Your task to perform on an android device: Is it going to rain tomorrow? Image 0: 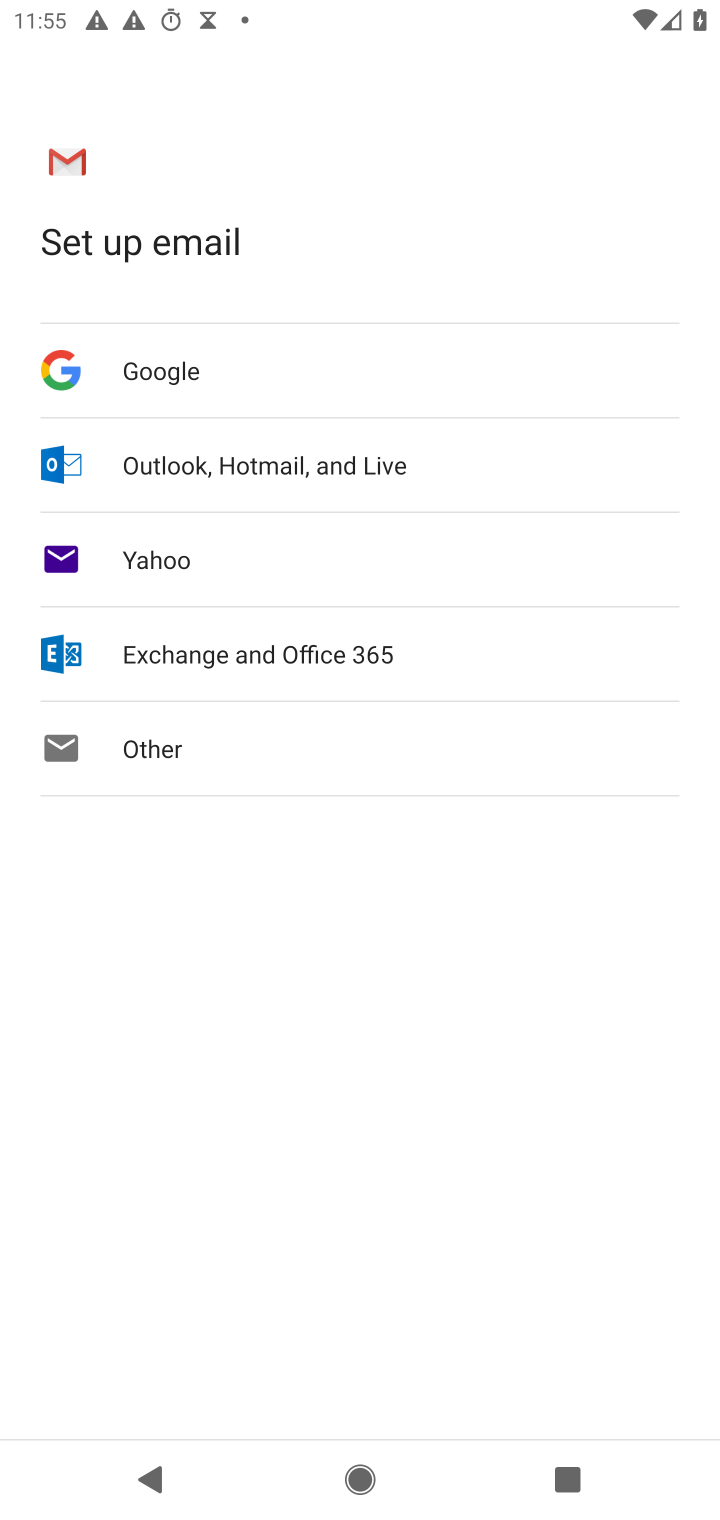
Step 0: press home button
Your task to perform on an android device: Is it going to rain tomorrow? Image 1: 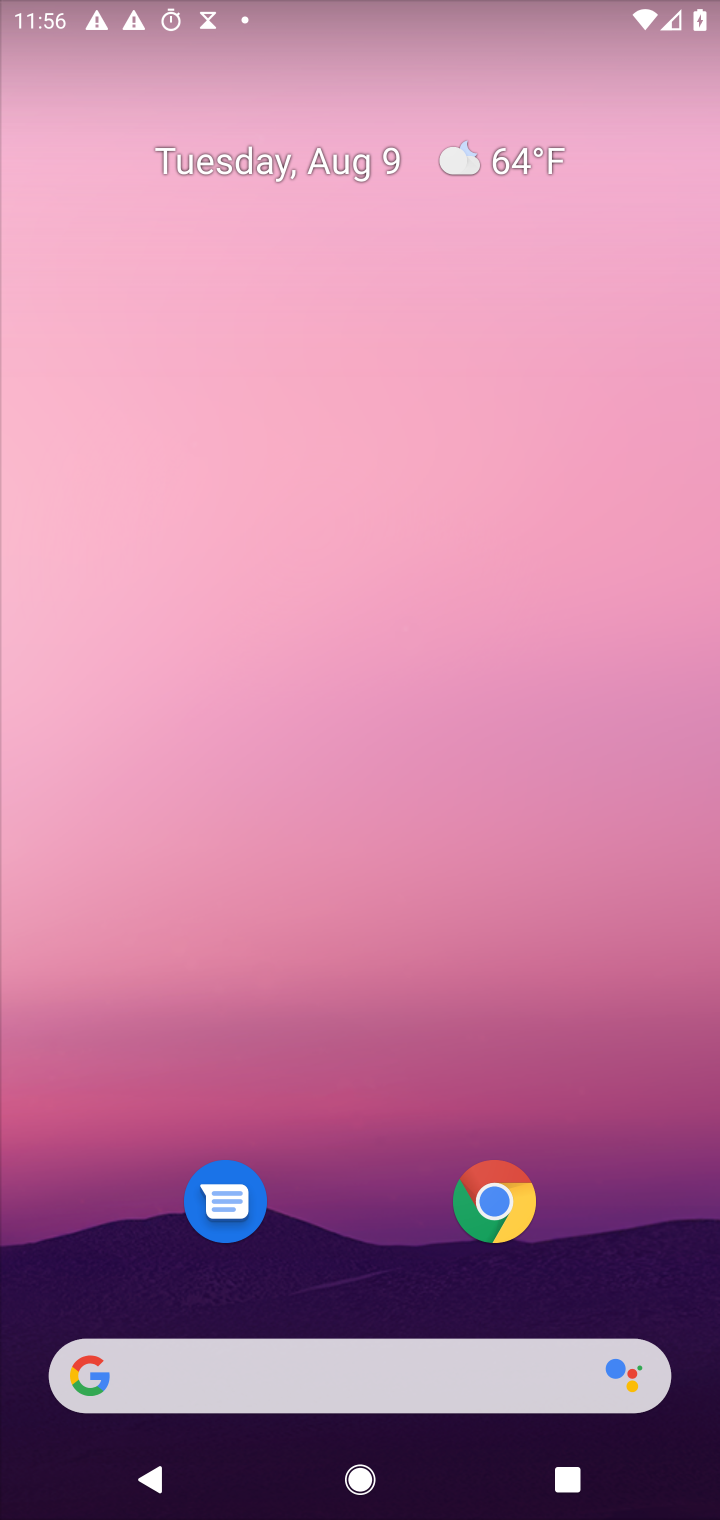
Step 1: drag from (389, 1088) to (371, 247)
Your task to perform on an android device: Is it going to rain tomorrow? Image 2: 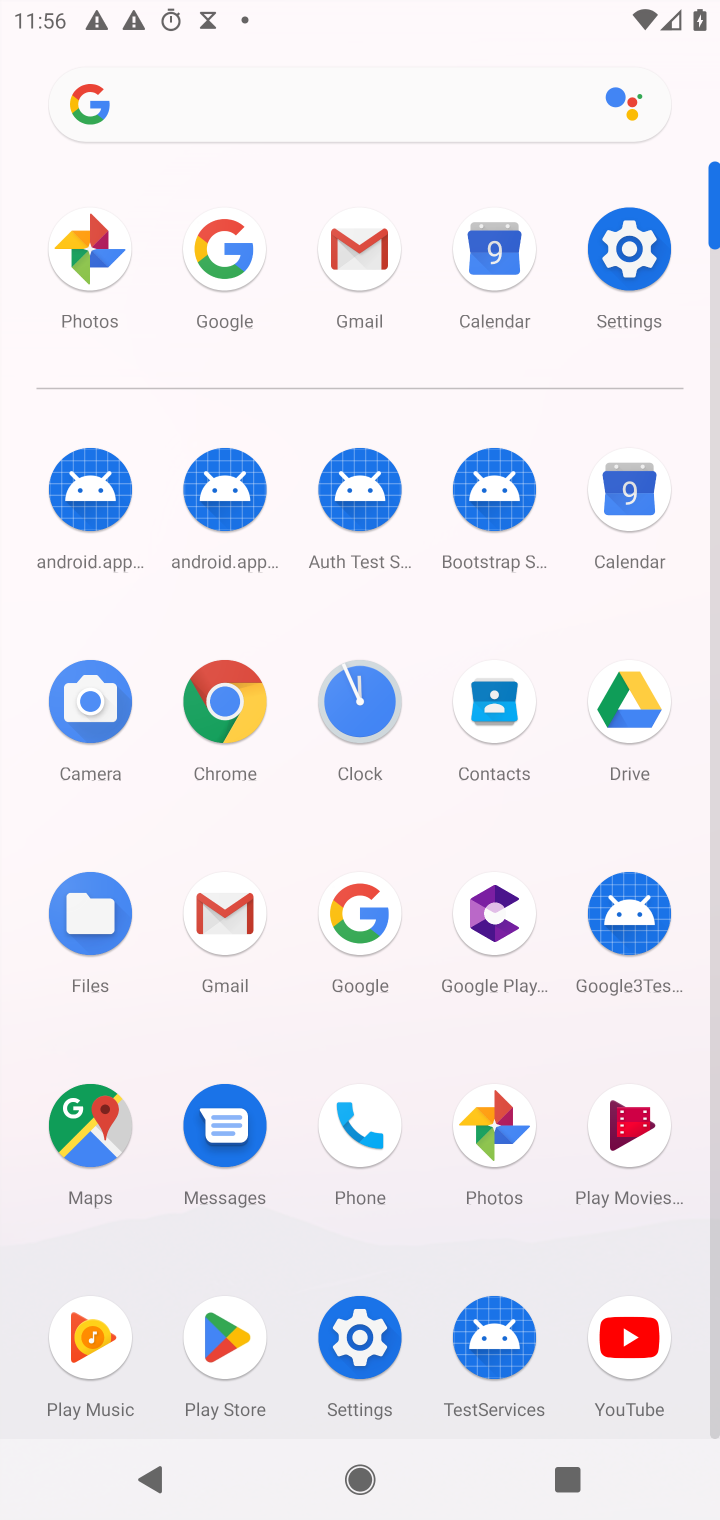
Step 2: click (232, 245)
Your task to perform on an android device: Is it going to rain tomorrow? Image 3: 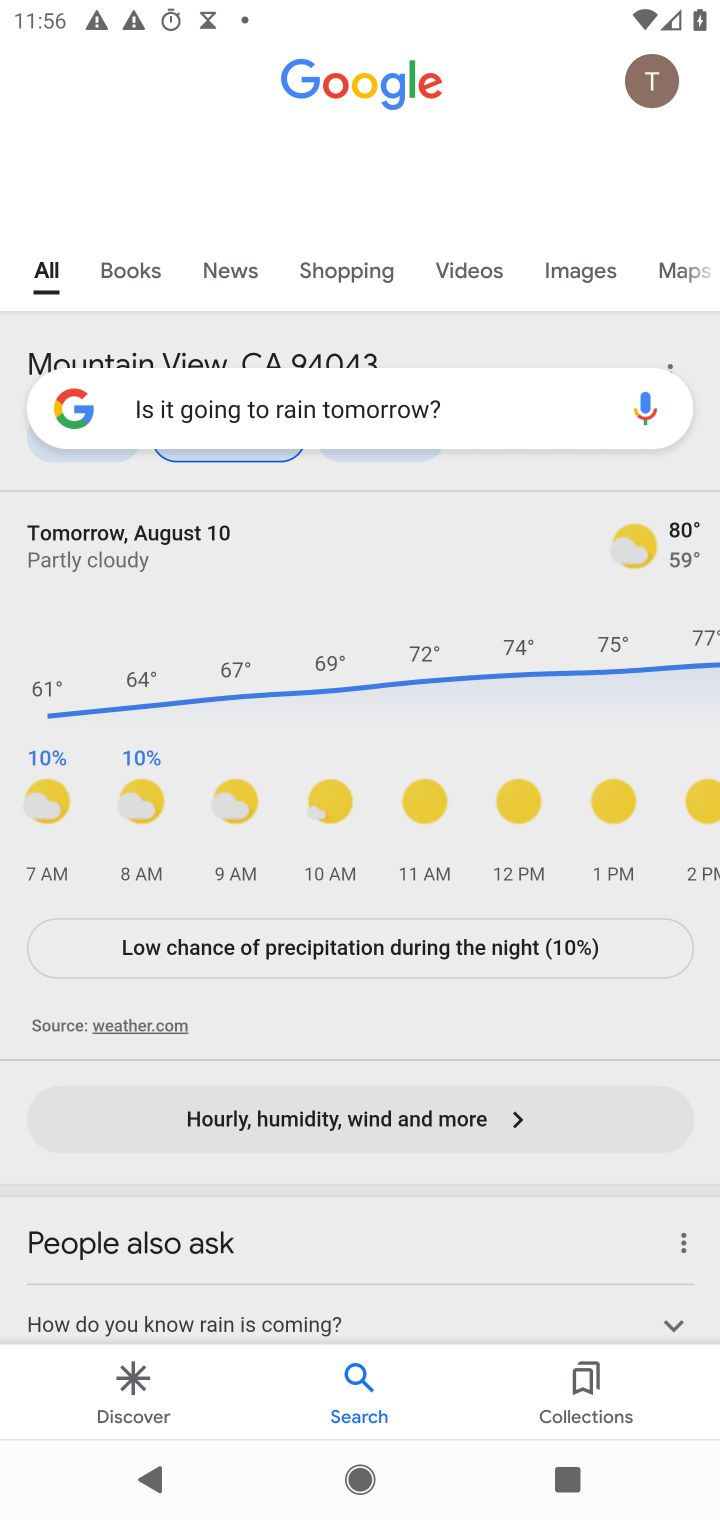
Step 3: click (472, 428)
Your task to perform on an android device: Is it going to rain tomorrow? Image 4: 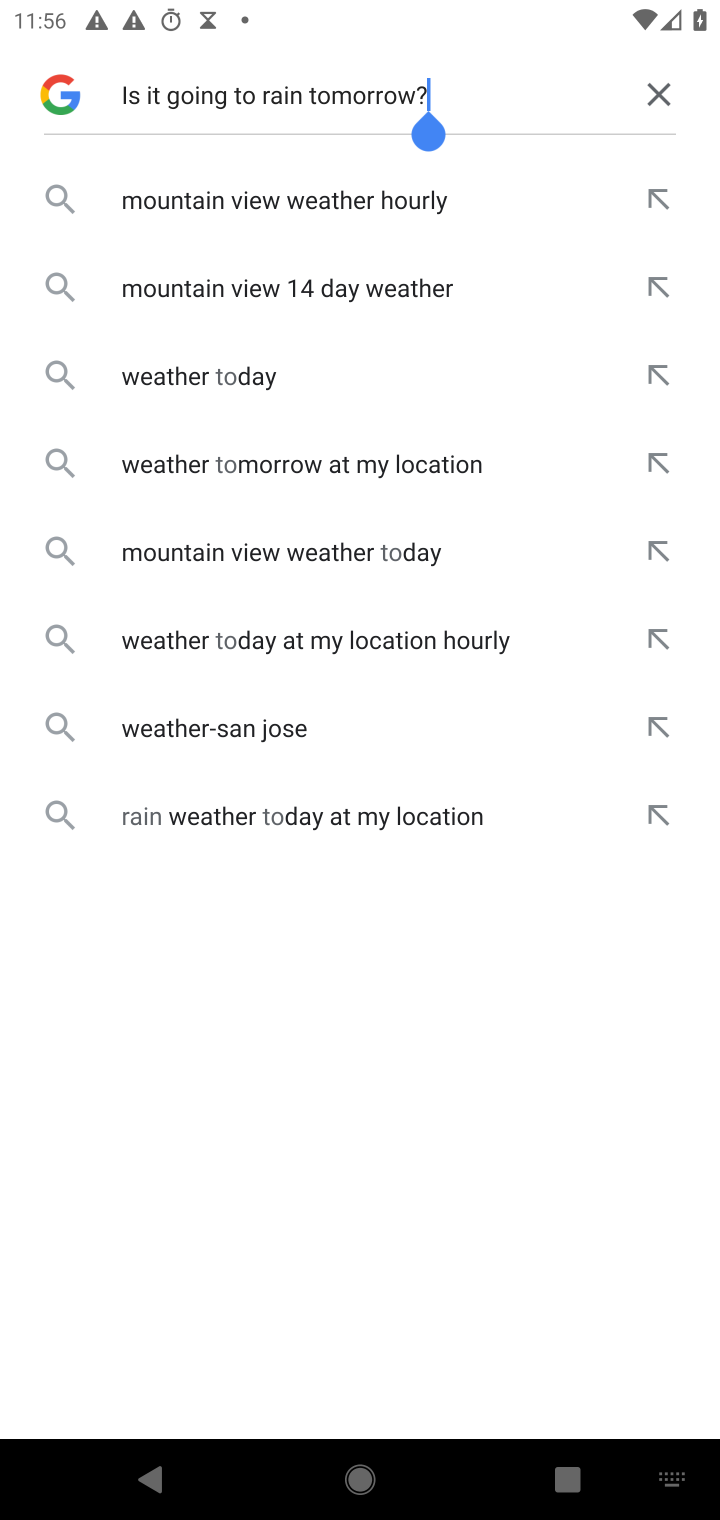
Step 4: click (660, 79)
Your task to perform on an android device: Is it going to rain tomorrow? Image 5: 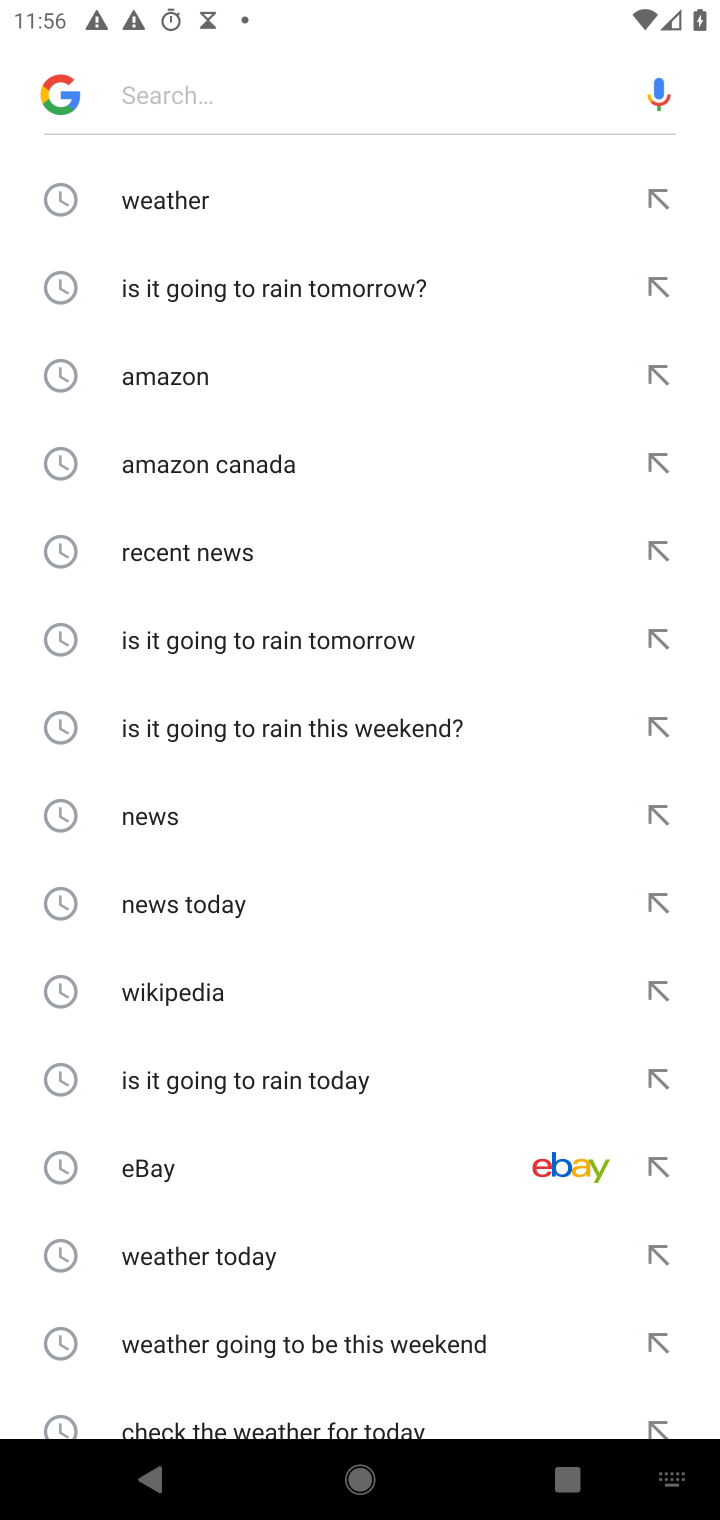
Step 5: type "Is it going to rain tomorrow?"
Your task to perform on an android device: Is it going to rain tomorrow? Image 6: 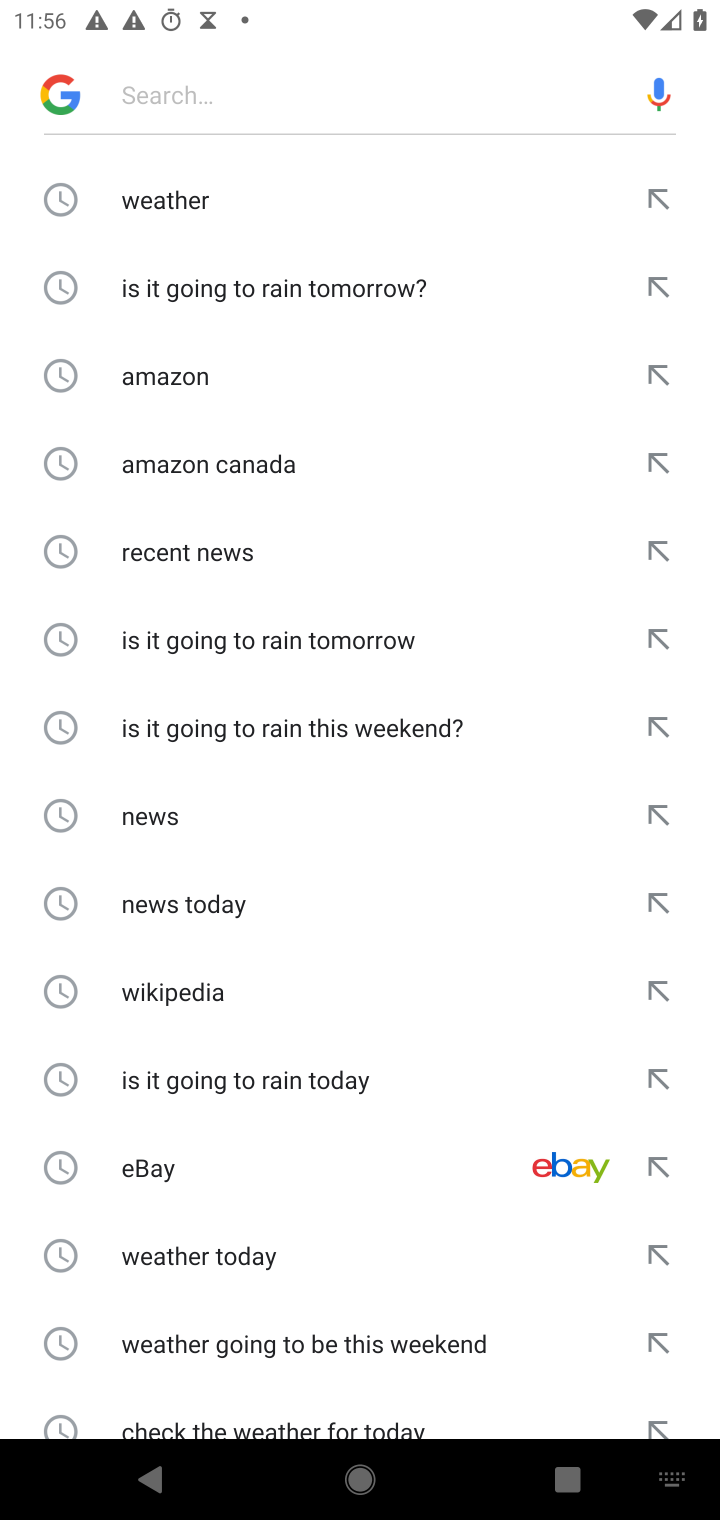
Step 6: click (218, 95)
Your task to perform on an android device: Is it going to rain tomorrow? Image 7: 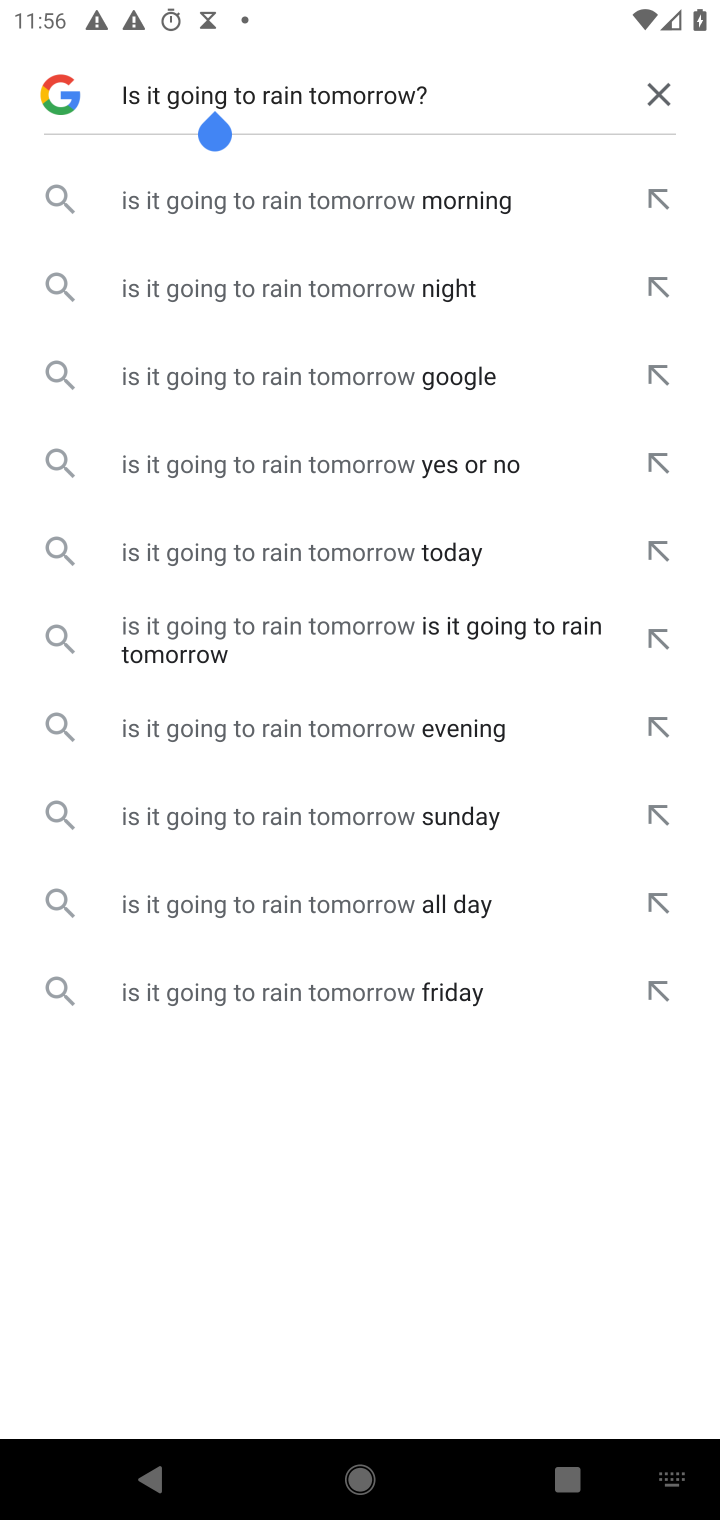
Step 7: press enter
Your task to perform on an android device: Is it going to rain tomorrow? Image 8: 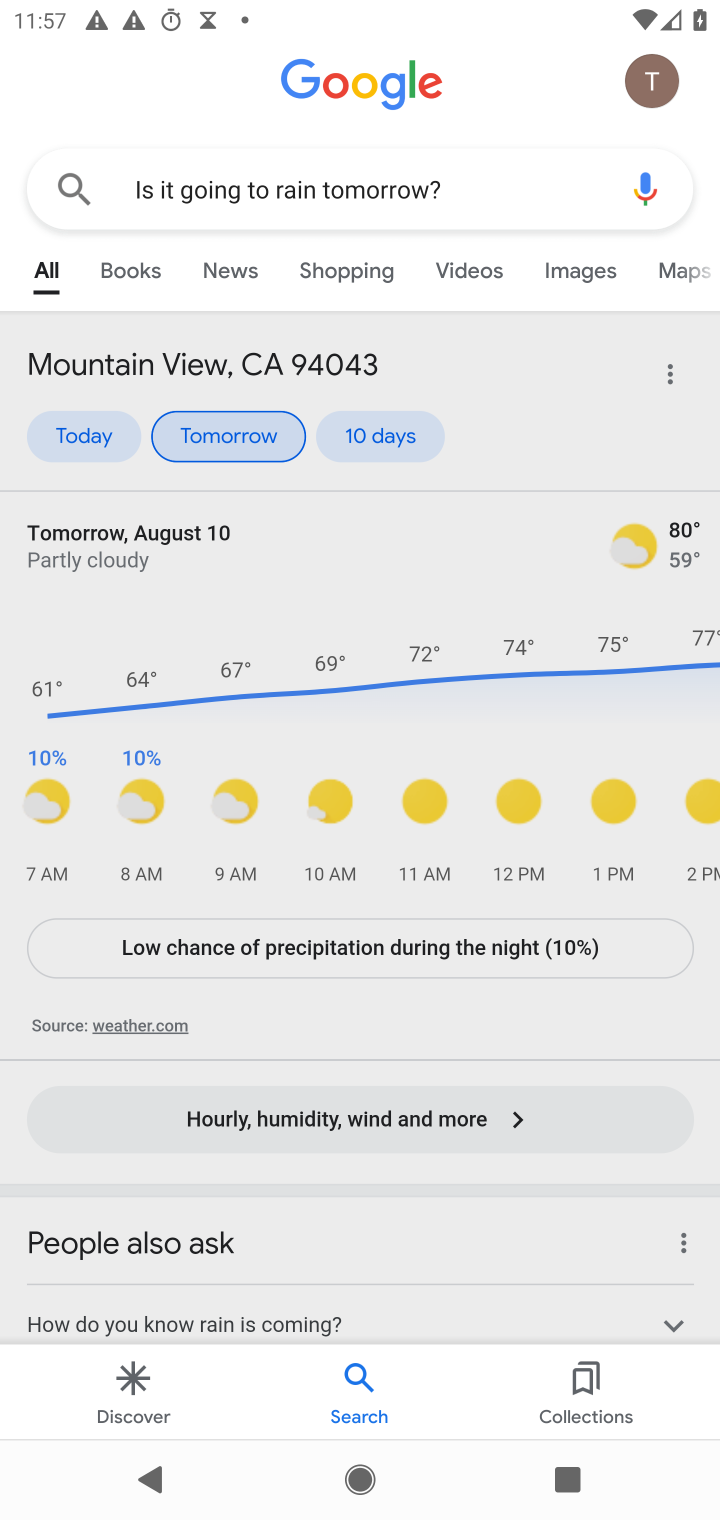
Step 8: task complete